Your task to perform on an android device: turn on sleep mode Image 0: 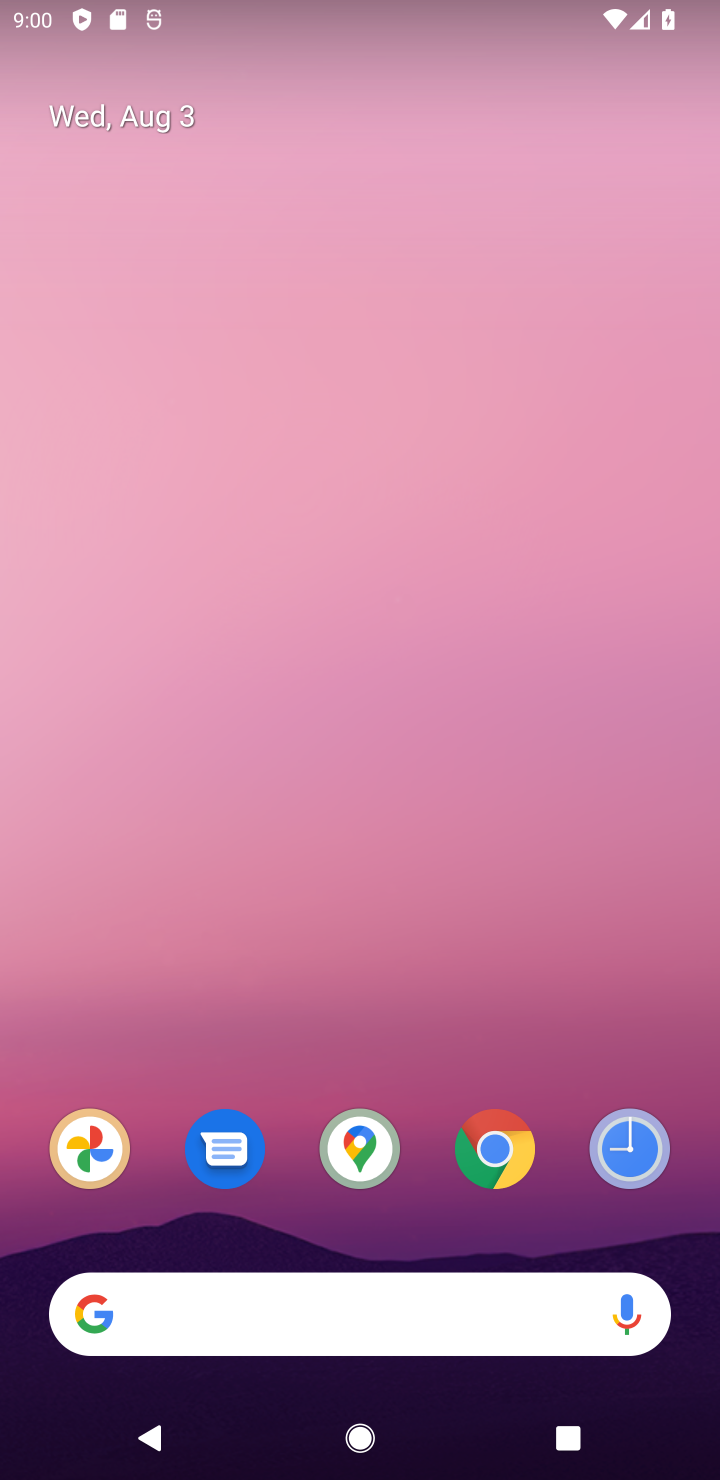
Step 0: drag from (431, 1021) to (371, 14)
Your task to perform on an android device: turn on sleep mode Image 1: 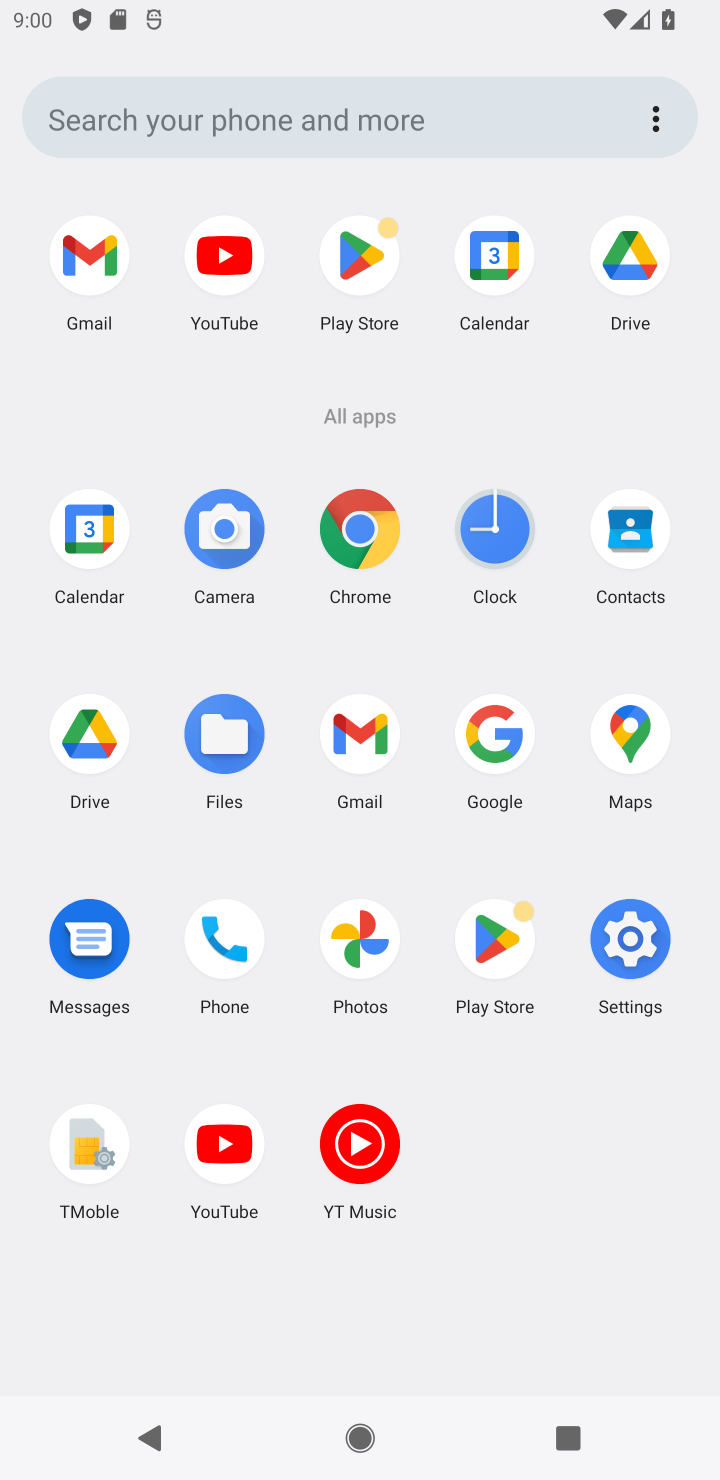
Step 1: click (633, 916)
Your task to perform on an android device: turn on sleep mode Image 2: 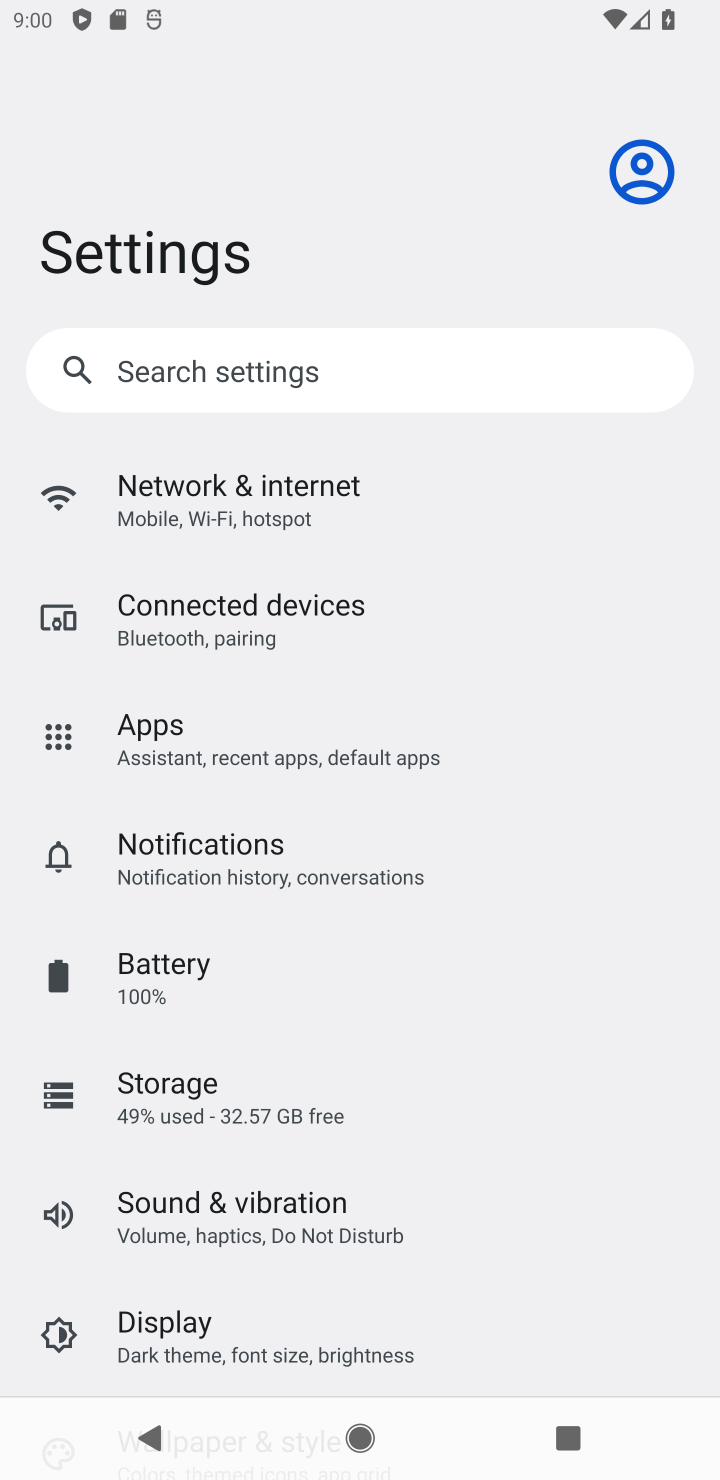
Step 2: click (262, 1350)
Your task to perform on an android device: turn on sleep mode Image 3: 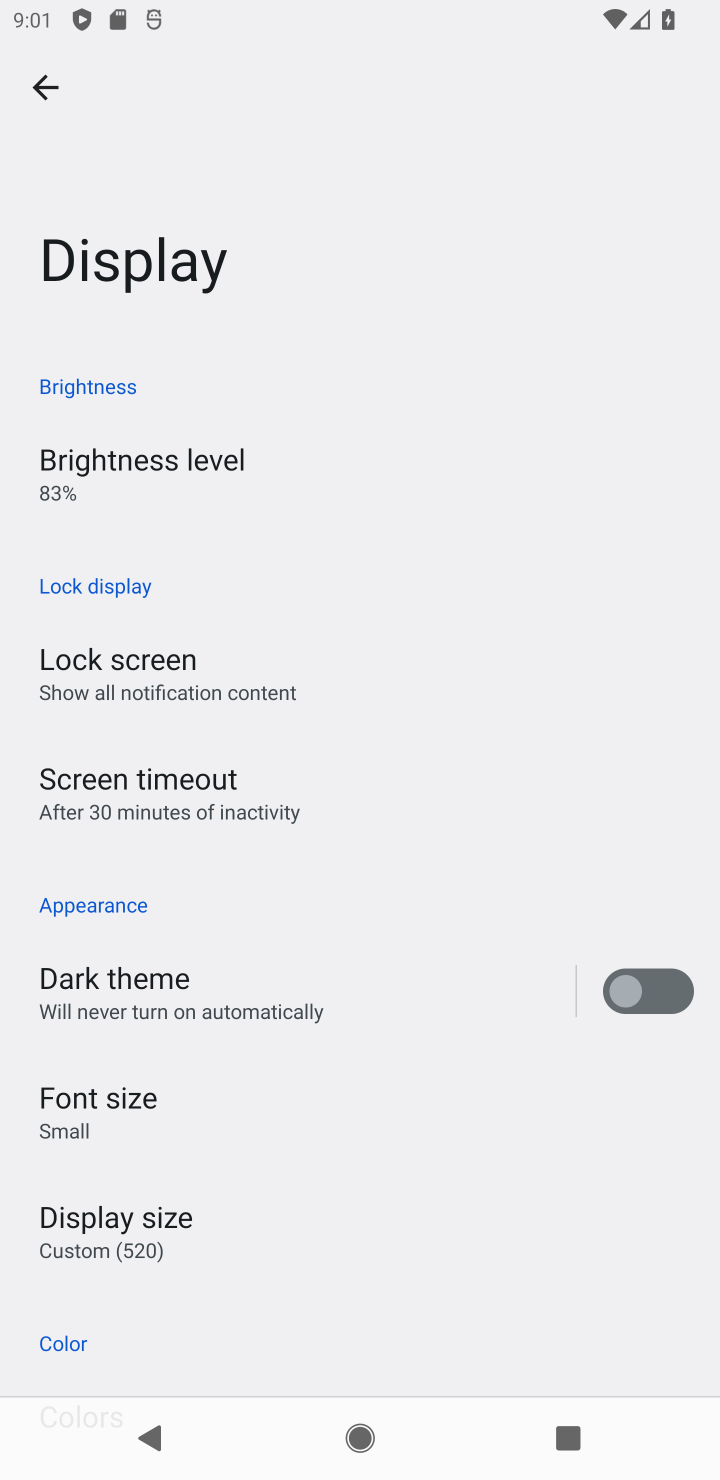
Step 3: task complete